Your task to perform on an android device: delete a single message in the gmail app Image 0: 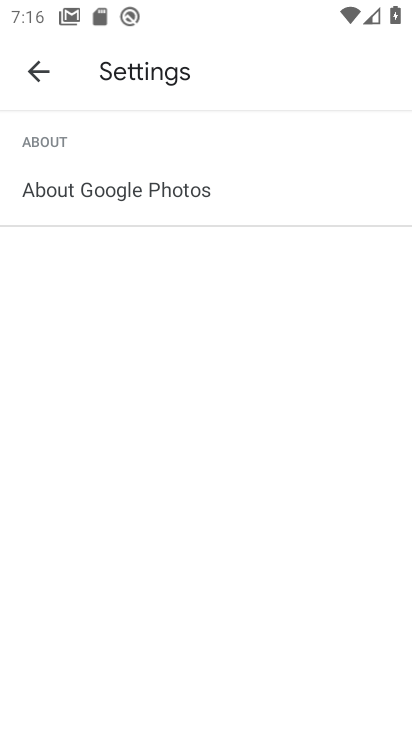
Step 0: press home button
Your task to perform on an android device: delete a single message in the gmail app Image 1: 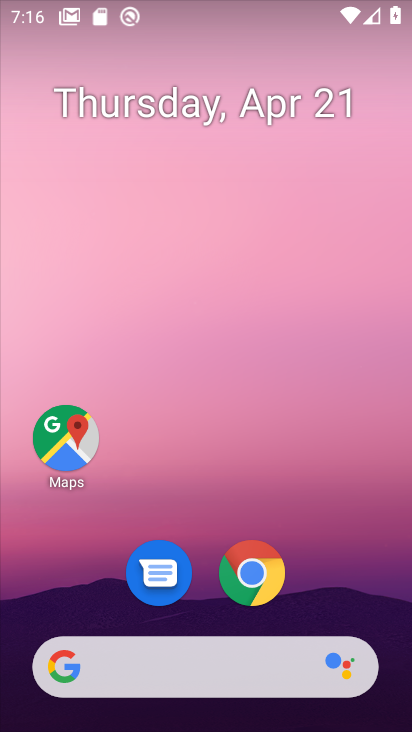
Step 1: drag from (364, 559) to (311, 0)
Your task to perform on an android device: delete a single message in the gmail app Image 2: 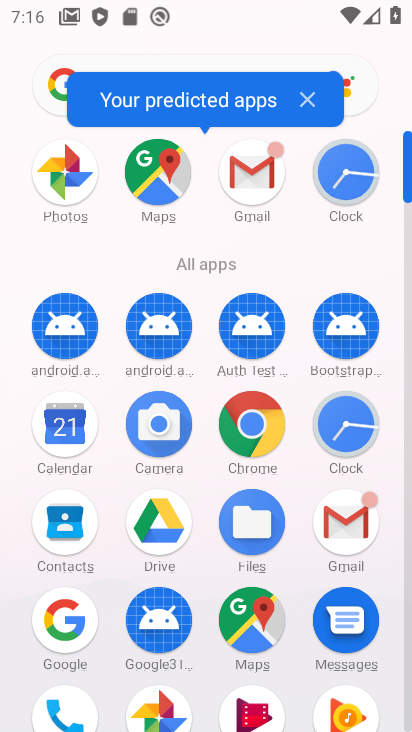
Step 2: click (363, 518)
Your task to perform on an android device: delete a single message in the gmail app Image 3: 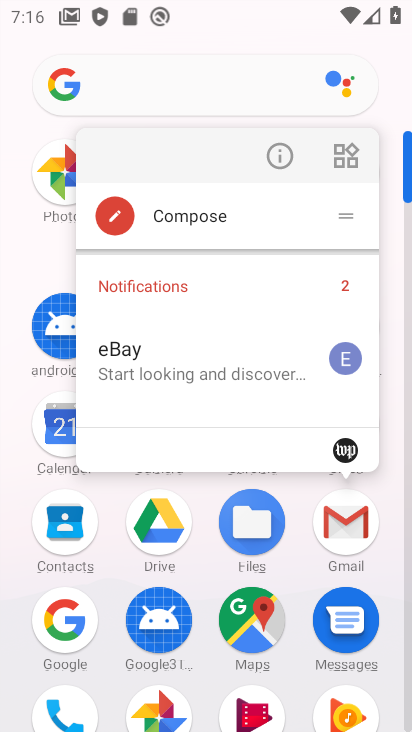
Step 3: click (363, 517)
Your task to perform on an android device: delete a single message in the gmail app Image 4: 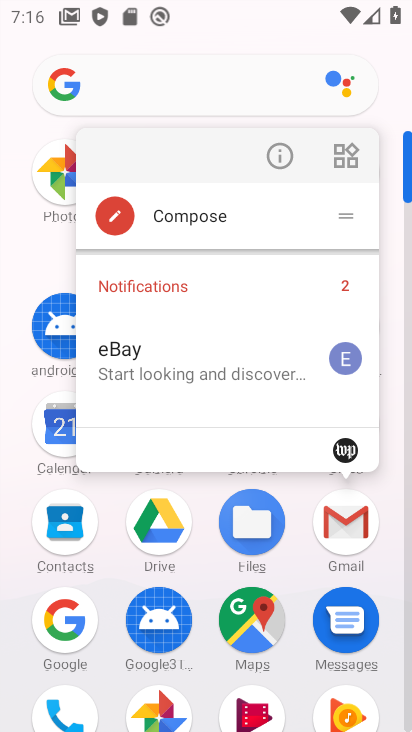
Step 4: click (363, 517)
Your task to perform on an android device: delete a single message in the gmail app Image 5: 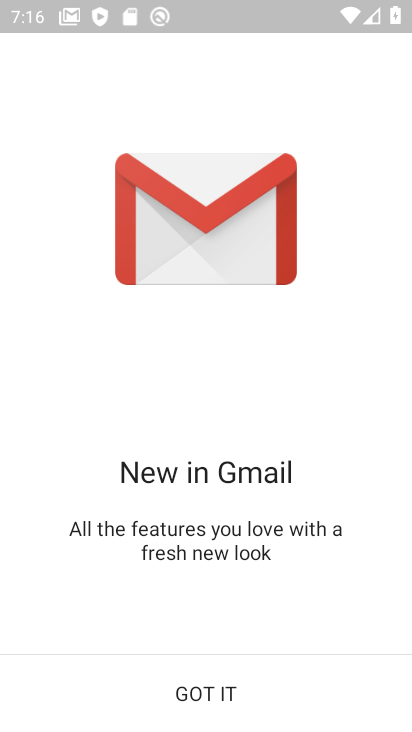
Step 5: click (227, 703)
Your task to perform on an android device: delete a single message in the gmail app Image 6: 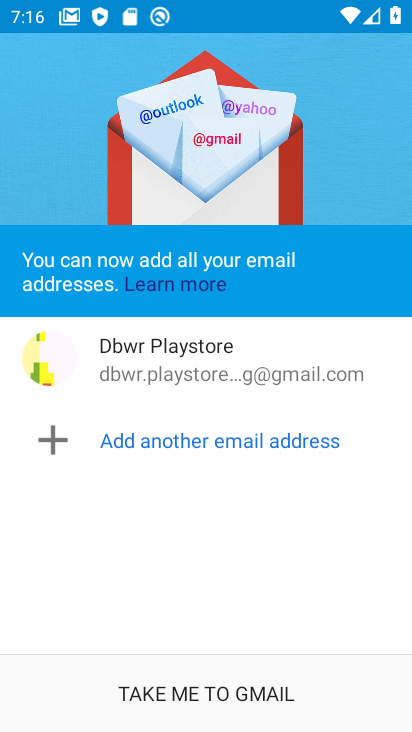
Step 6: click (227, 703)
Your task to perform on an android device: delete a single message in the gmail app Image 7: 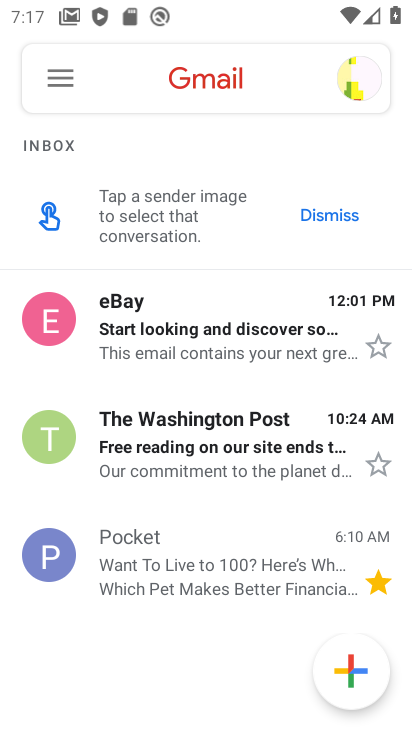
Step 7: click (185, 325)
Your task to perform on an android device: delete a single message in the gmail app Image 8: 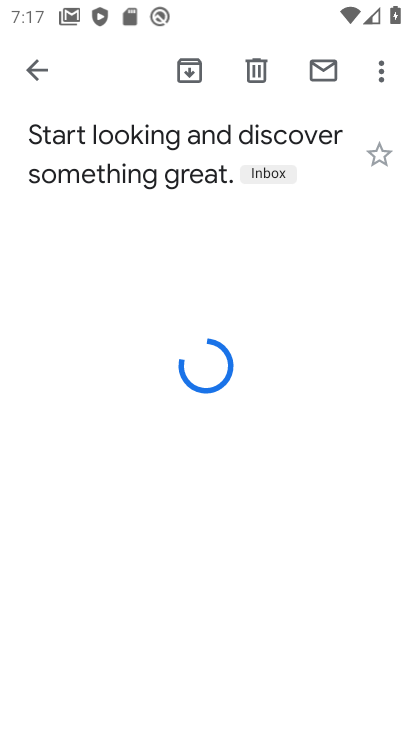
Step 8: click (249, 69)
Your task to perform on an android device: delete a single message in the gmail app Image 9: 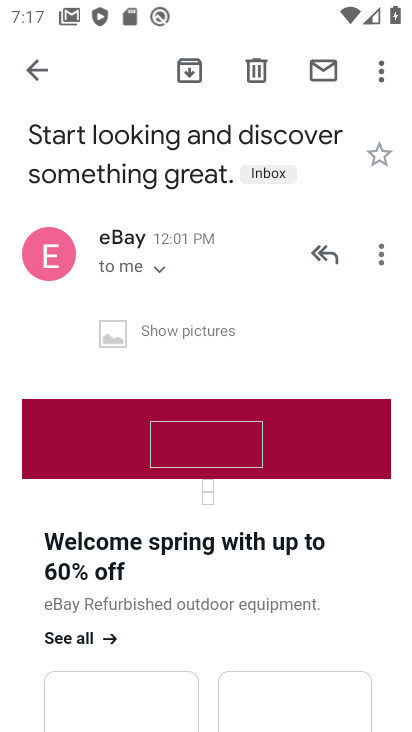
Step 9: click (250, 72)
Your task to perform on an android device: delete a single message in the gmail app Image 10: 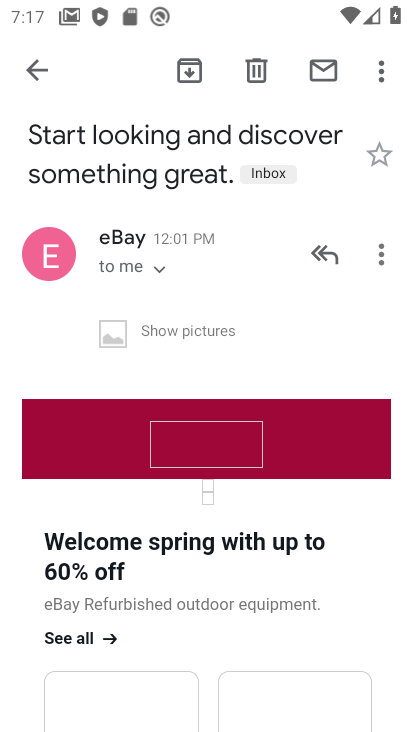
Step 10: click (261, 72)
Your task to perform on an android device: delete a single message in the gmail app Image 11: 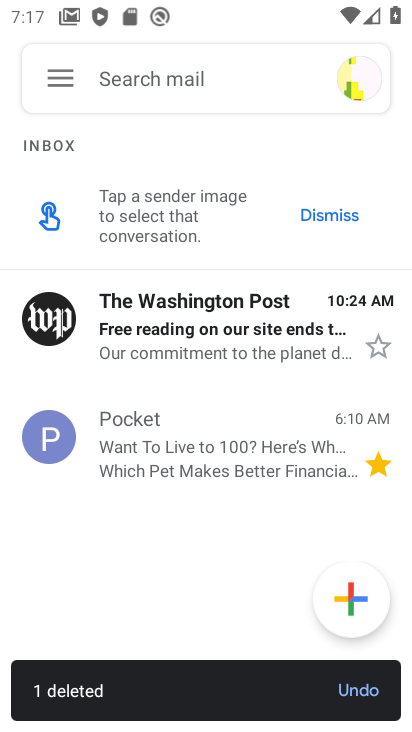
Step 11: task complete